Your task to perform on an android device: check battery use Image 0: 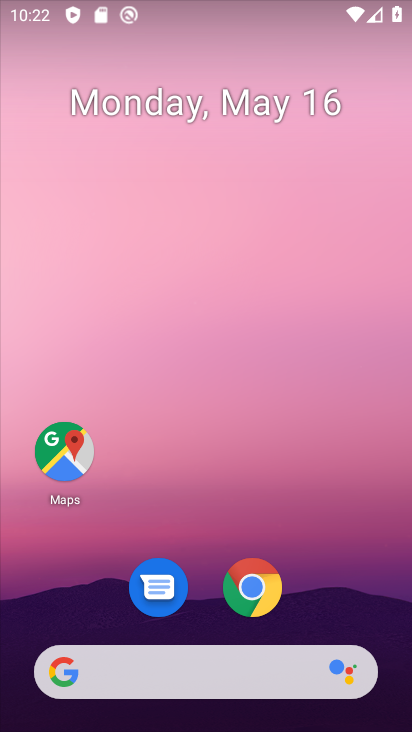
Step 0: drag from (316, 607) to (191, 3)
Your task to perform on an android device: check battery use Image 1: 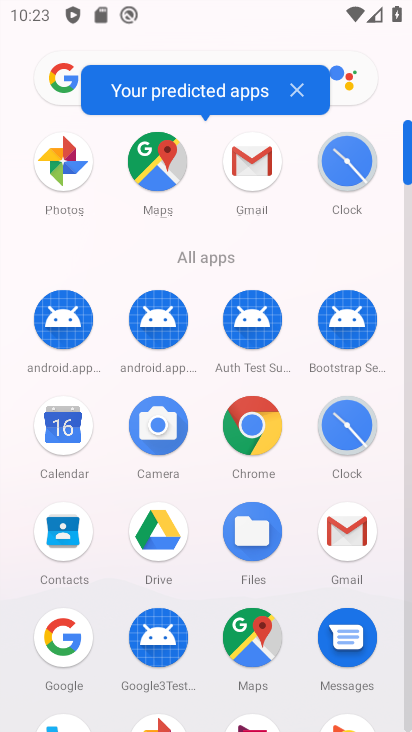
Step 1: drag from (19, 613) to (22, 276)
Your task to perform on an android device: check battery use Image 2: 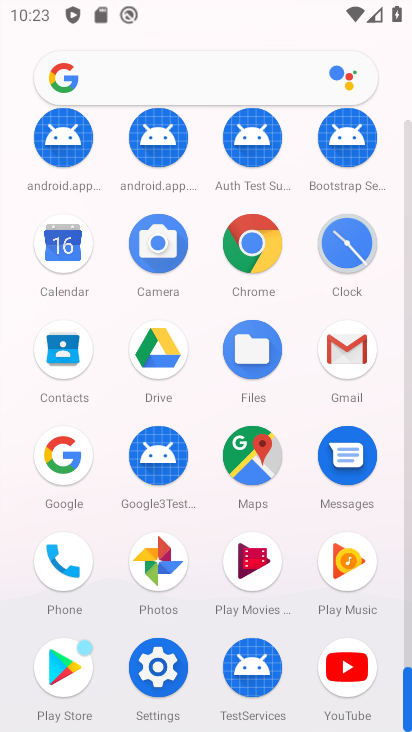
Step 2: click (156, 666)
Your task to perform on an android device: check battery use Image 3: 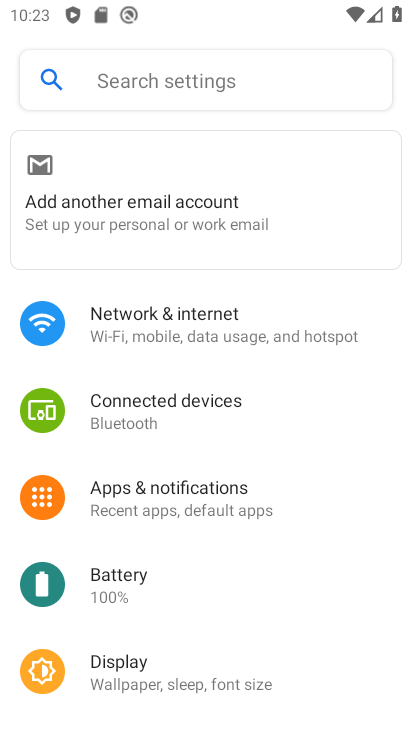
Step 3: drag from (286, 566) to (292, 178)
Your task to perform on an android device: check battery use Image 4: 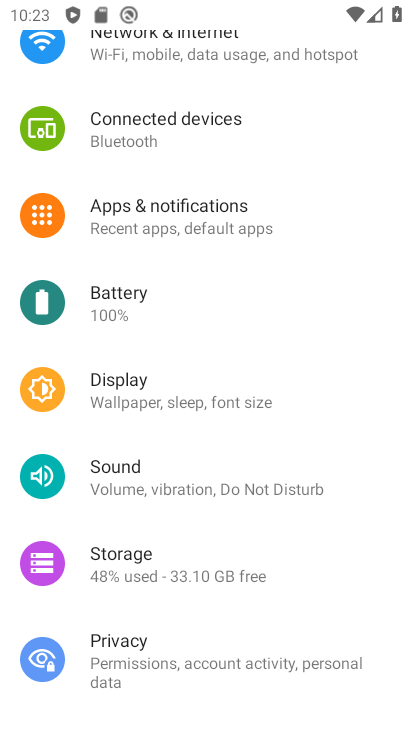
Step 4: drag from (264, 519) to (254, 121)
Your task to perform on an android device: check battery use Image 5: 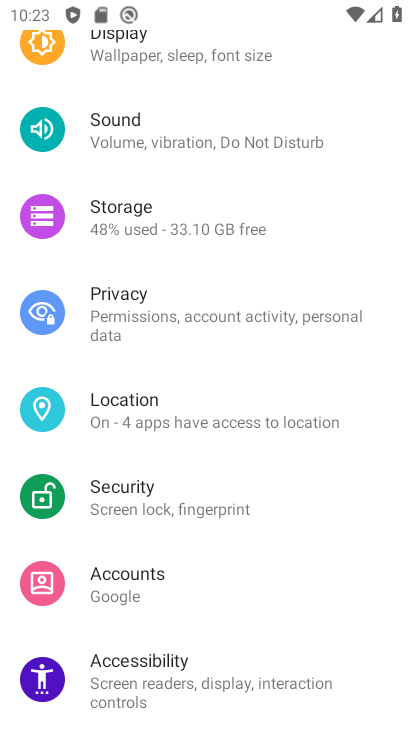
Step 5: drag from (284, 483) to (299, 104)
Your task to perform on an android device: check battery use Image 6: 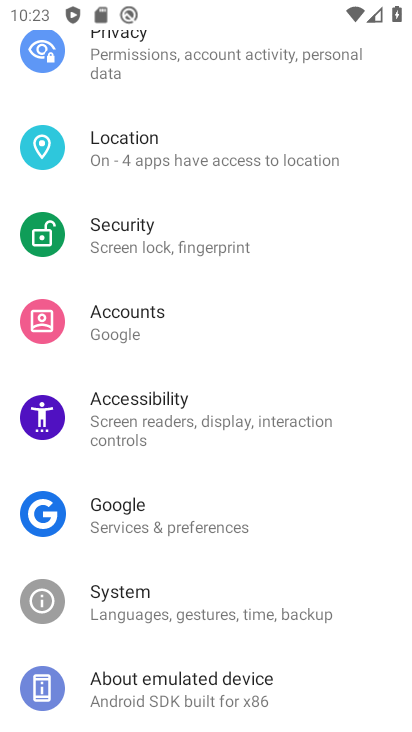
Step 6: drag from (262, 622) to (262, 135)
Your task to perform on an android device: check battery use Image 7: 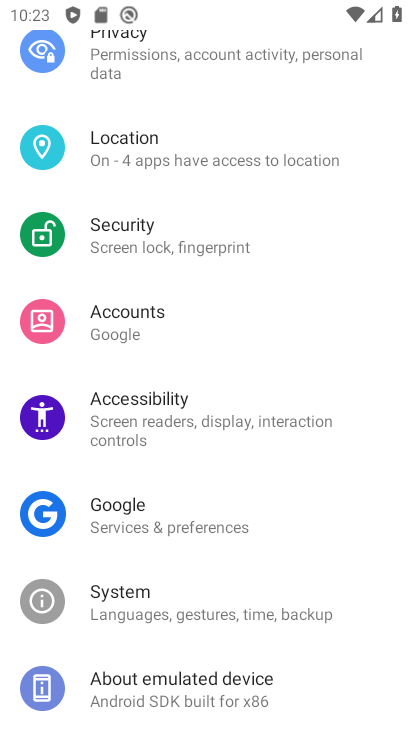
Step 7: drag from (240, 568) to (229, 111)
Your task to perform on an android device: check battery use Image 8: 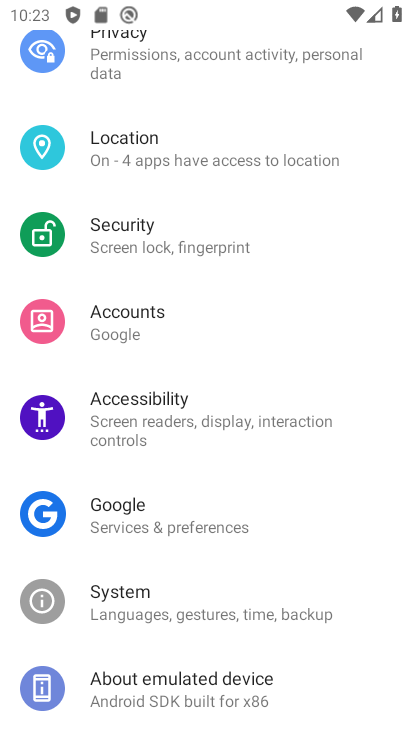
Step 8: drag from (213, 136) to (248, 569)
Your task to perform on an android device: check battery use Image 9: 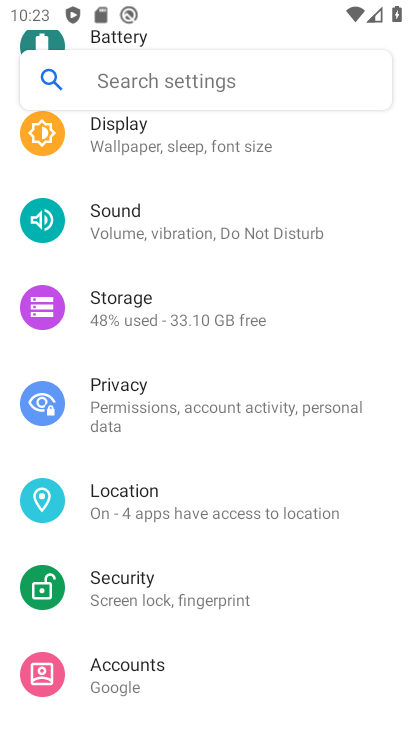
Step 9: drag from (225, 261) to (240, 608)
Your task to perform on an android device: check battery use Image 10: 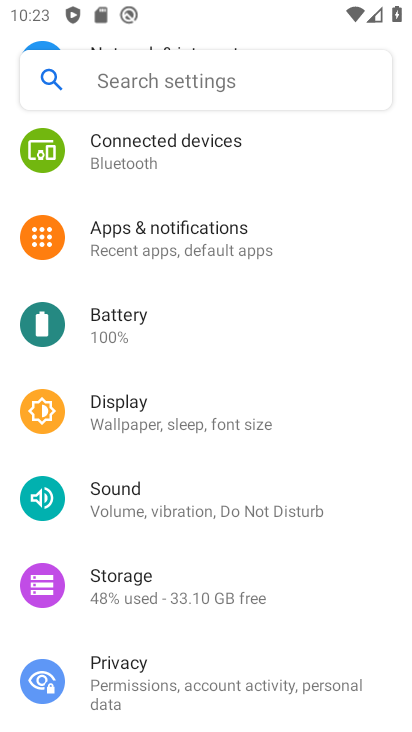
Step 10: click (166, 313)
Your task to perform on an android device: check battery use Image 11: 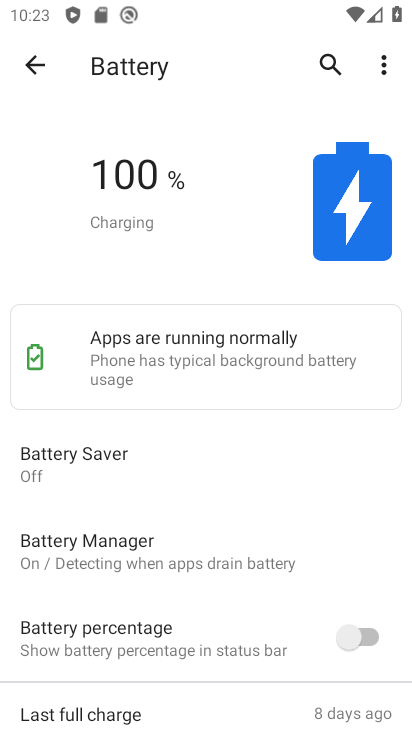
Step 11: task complete